Your task to perform on an android device: Open Wikipedia Image 0: 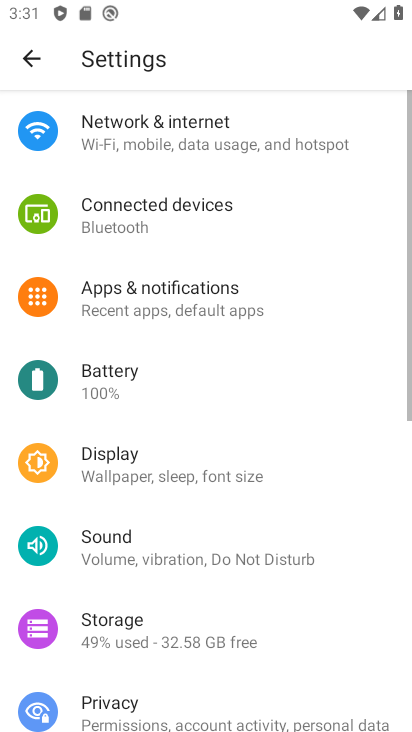
Step 0: press home button
Your task to perform on an android device: Open Wikipedia Image 1: 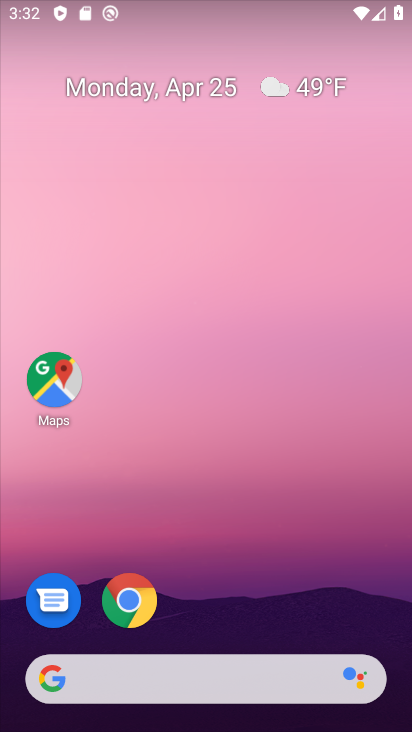
Step 1: click (131, 593)
Your task to perform on an android device: Open Wikipedia Image 2: 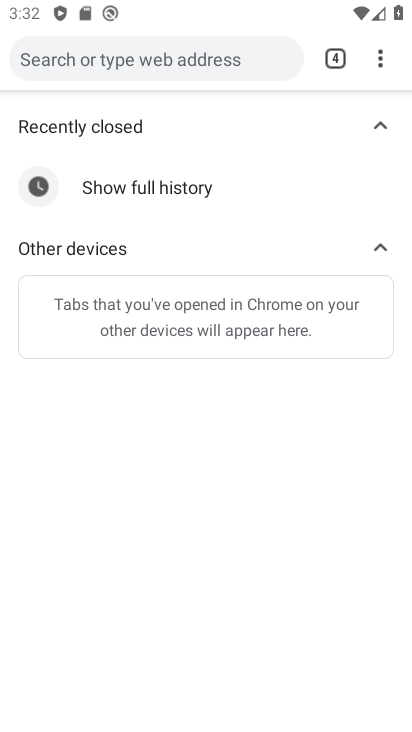
Step 2: drag from (375, 60) to (236, 188)
Your task to perform on an android device: Open Wikipedia Image 3: 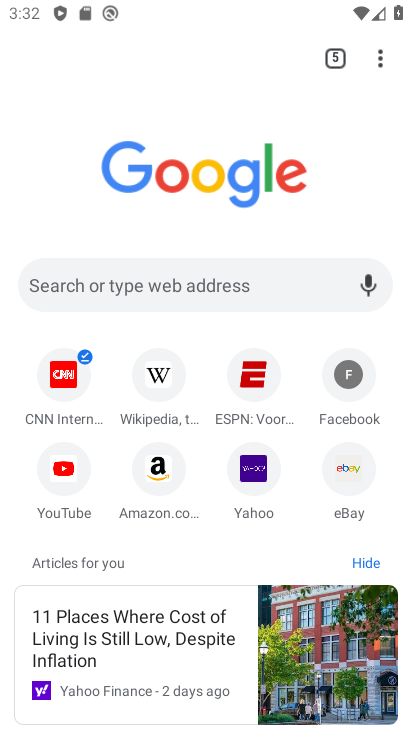
Step 3: click (162, 371)
Your task to perform on an android device: Open Wikipedia Image 4: 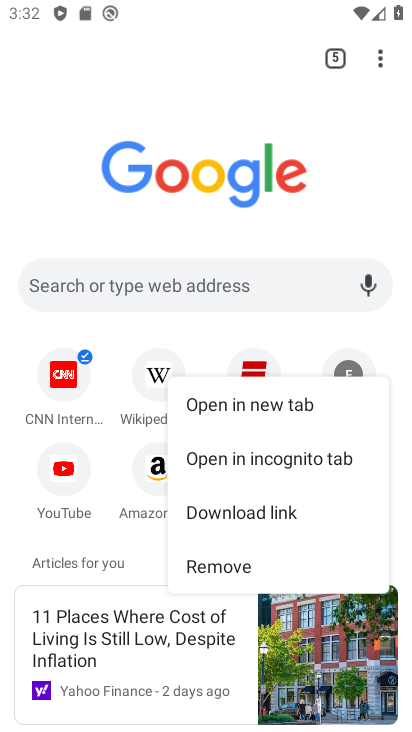
Step 4: click (162, 370)
Your task to perform on an android device: Open Wikipedia Image 5: 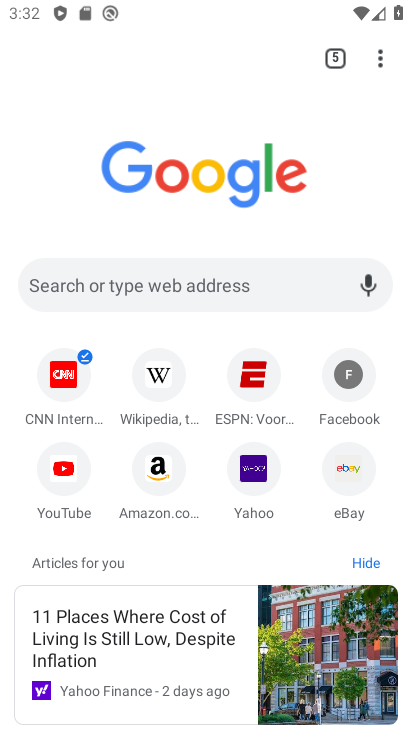
Step 5: click (162, 370)
Your task to perform on an android device: Open Wikipedia Image 6: 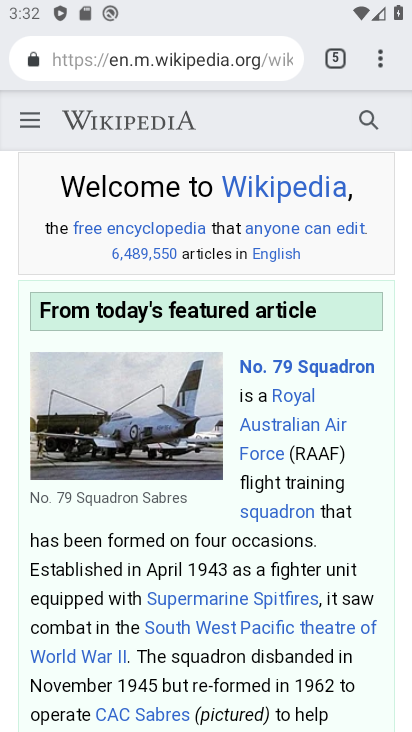
Step 6: task complete